Your task to perform on an android device: Open the map Image 0: 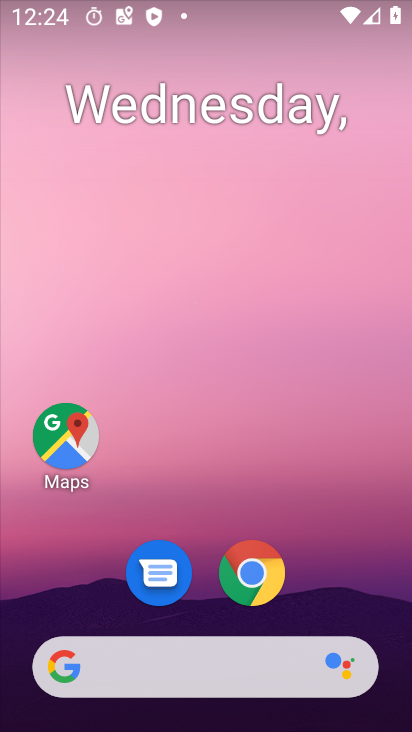
Step 0: drag from (364, 594) to (282, 159)
Your task to perform on an android device: Open the map Image 1: 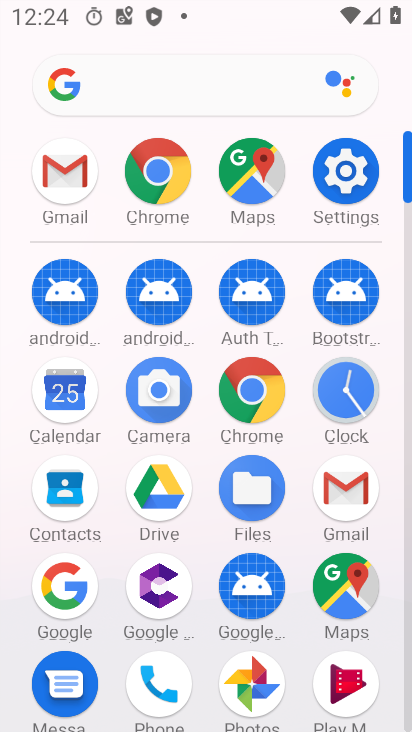
Step 1: drag from (326, 418) to (270, 1)
Your task to perform on an android device: Open the map Image 2: 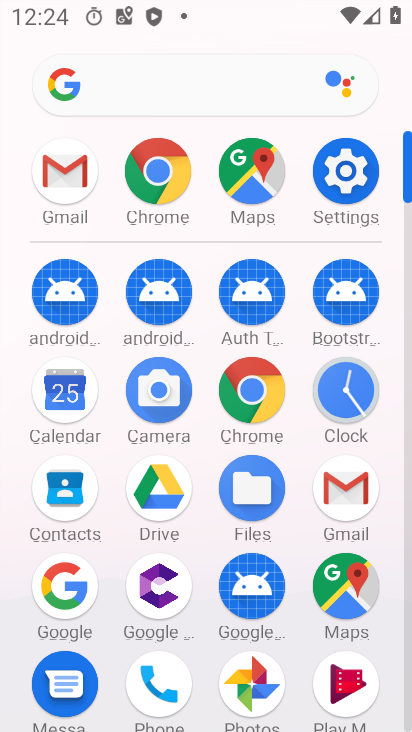
Step 2: drag from (333, 404) to (291, 27)
Your task to perform on an android device: Open the map Image 3: 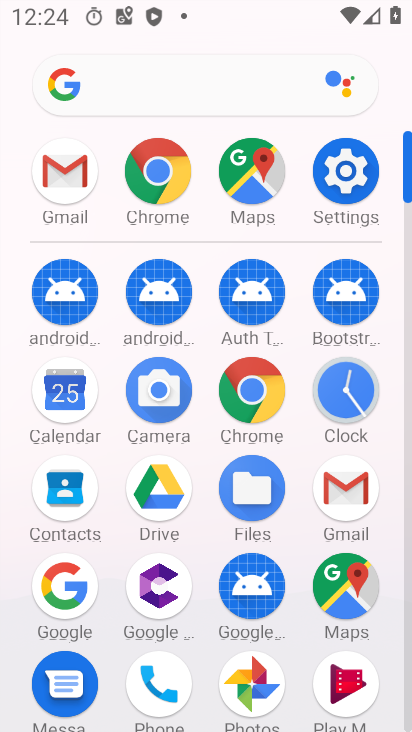
Step 3: drag from (281, 416) to (228, 80)
Your task to perform on an android device: Open the map Image 4: 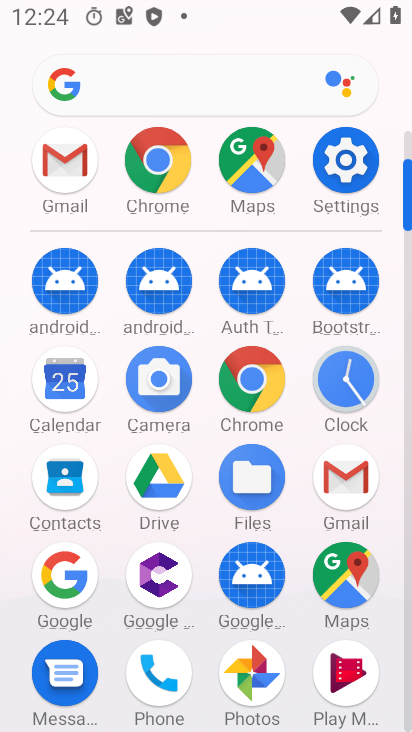
Step 4: click (245, 176)
Your task to perform on an android device: Open the map Image 5: 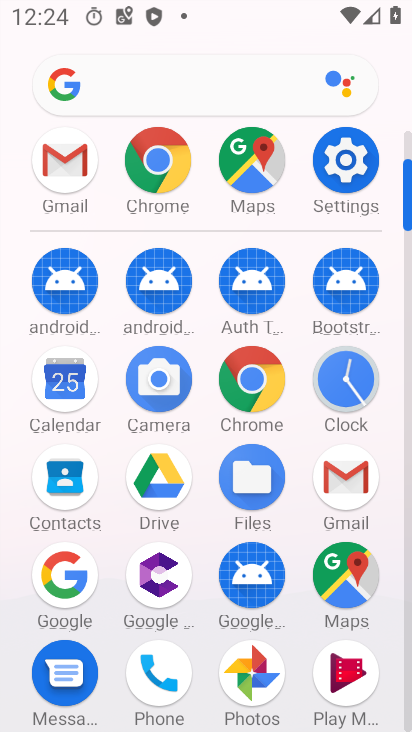
Step 5: click (244, 176)
Your task to perform on an android device: Open the map Image 6: 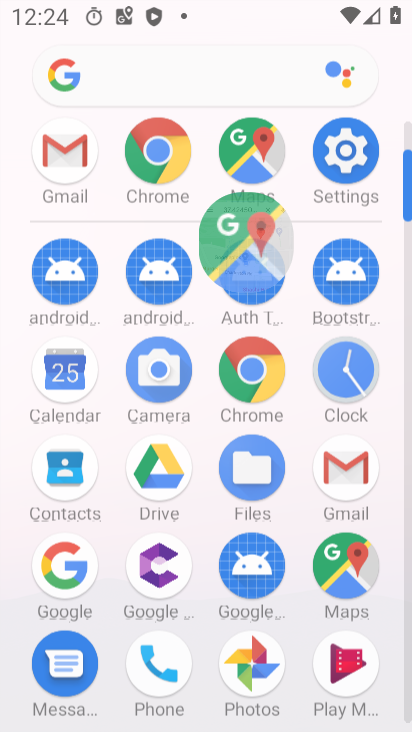
Step 6: click (246, 176)
Your task to perform on an android device: Open the map Image 7: 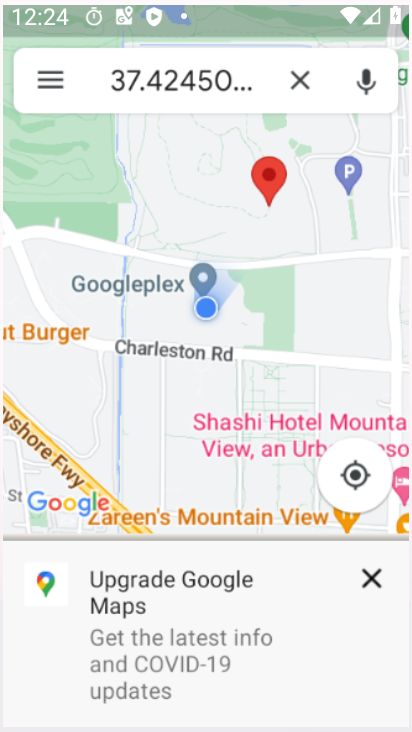
Step 7: click (249, 179)
Your task to perform on an android device: Open the map Image 8: 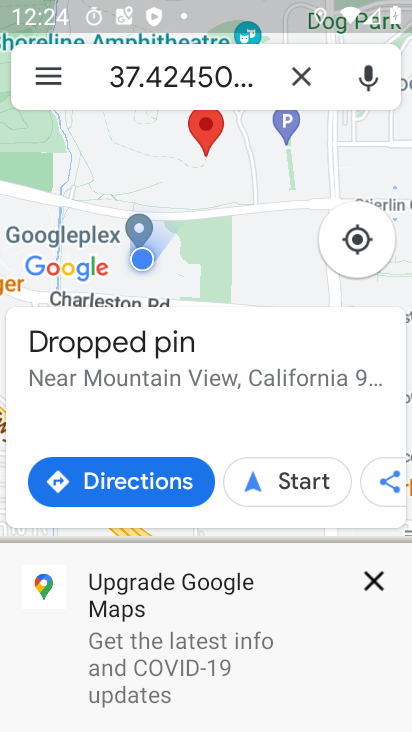
Step 8: click (248, 182)
Your task to perform on an android device: Open the map Image 9: 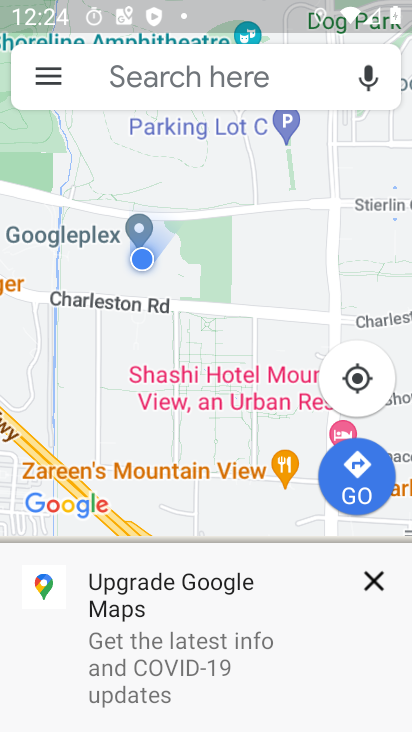
Step 9: click (248, 182)
Your task to perform on an android device: Open the map Image 10: 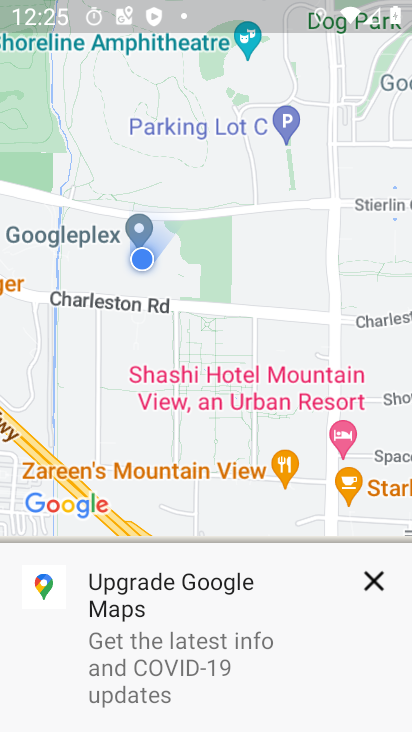
Step 10: drag from (178, 262) to (158, 35)
Your task to perform on an android device: Open the map Image 11: 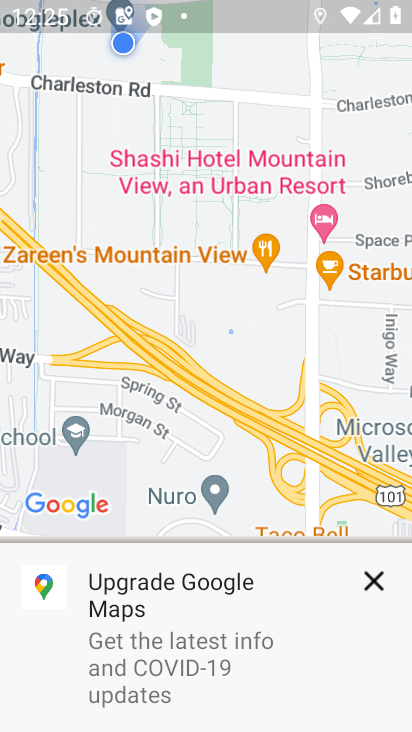
Step 11: drag from (193, 53) to (251, 41)
Your task to perform on an android device: Open the map Image 12: 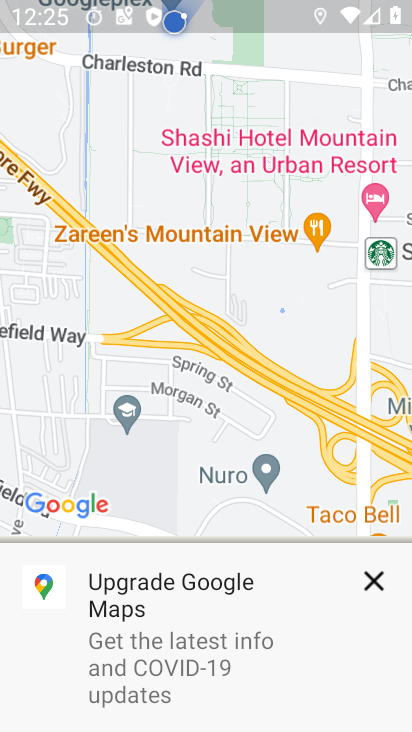
Step 12: drag from (242, 371) to (225, 4)
Your task to perform on an android device: Open the map Image 13: 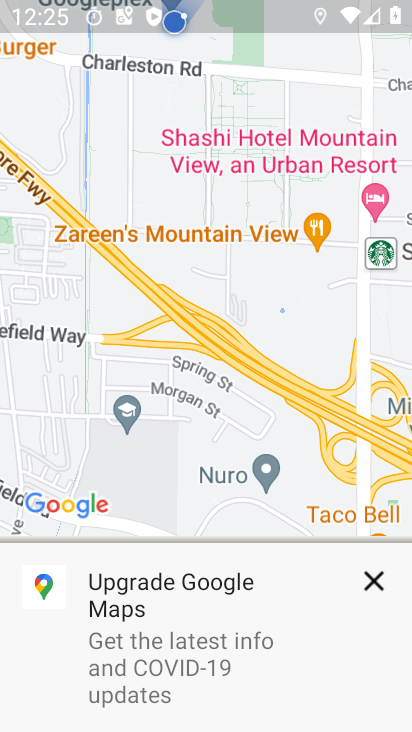
Step 13: click (207, 54)
Your task to perform on an android device: Open the map Image 14: 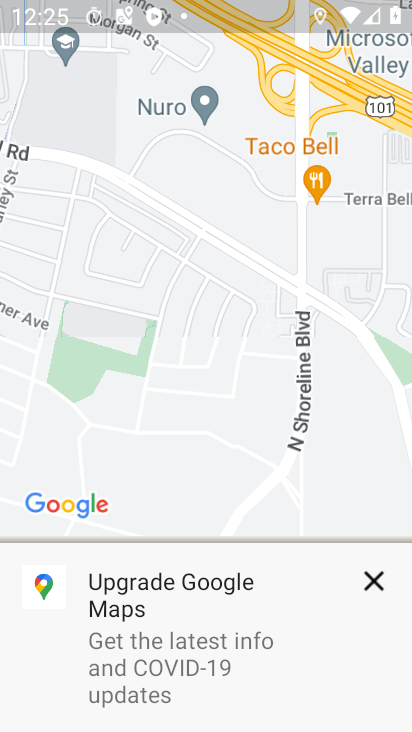
Step 14: task complete